Your task to perform on an android device: see sites visited before in the chrome app Image 0: 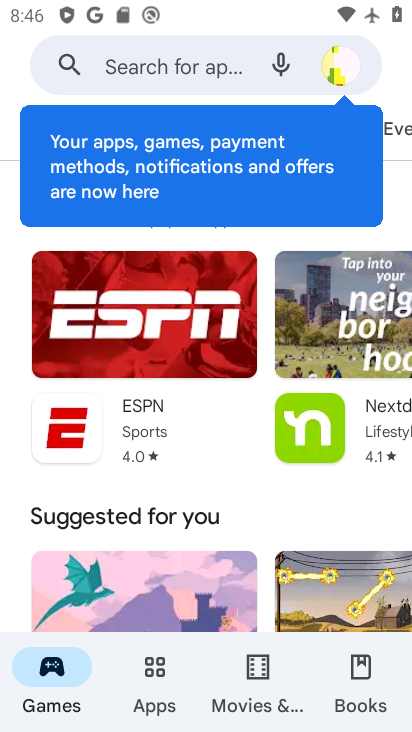
Step 0: press home button
Your task to perform on an android device: see sites visited before in the chrome app Image 1: 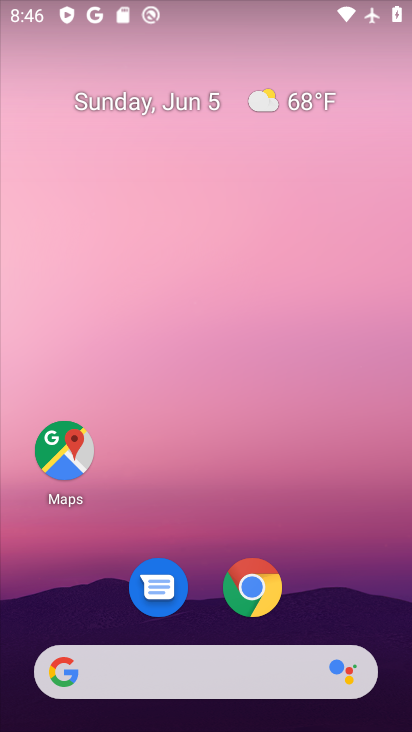
Step 1: click (235, 618)
Your task to perform on an android device: see sites visited before in the chrome app Image 2: 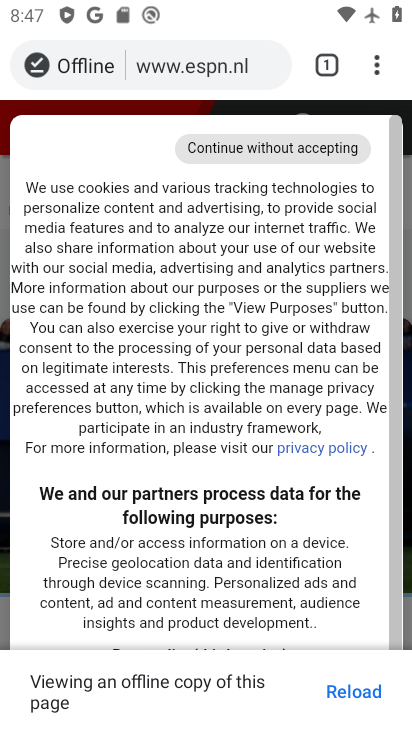
Step 2: click (371, 57)
Your task to perform on an android device: see sites visited before in the chrome app Image 3: 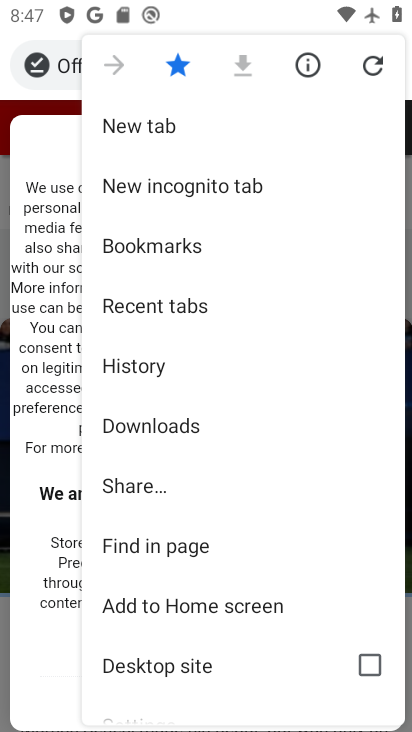
Step 3: click (171, 312)
Your task to perform on an android device: see sites visited before in the chrome app Image 4: 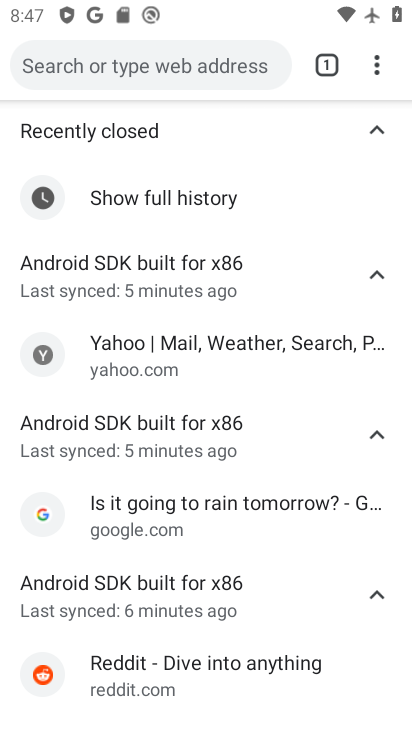
Step 4: task complete